Your task to perform on an android device: What is the news today? Image 0: 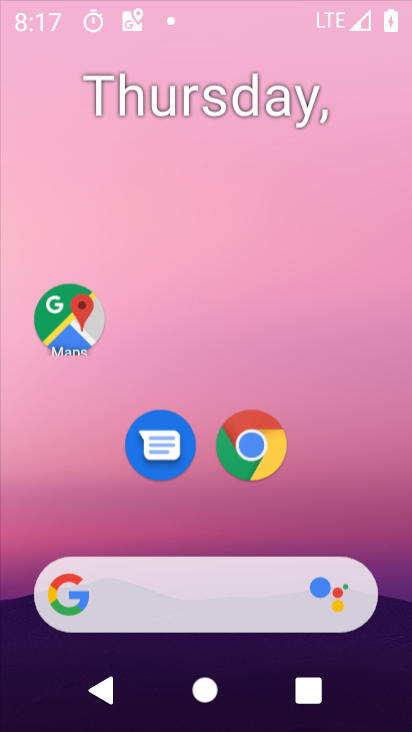
Step 0: drag from (239, 566) to (341, 161)
Your task to perform on an android device: What is the news today? Image 1: 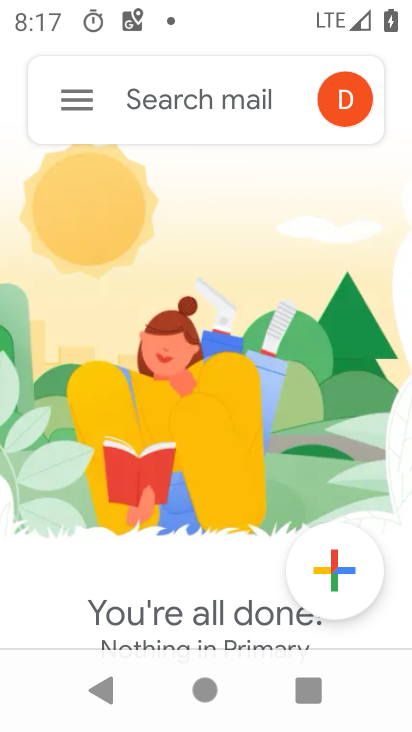
Step 1: drag from (215, 599) to (277, 178)
Your task to perform on an android device: What is the news today? Image 2: 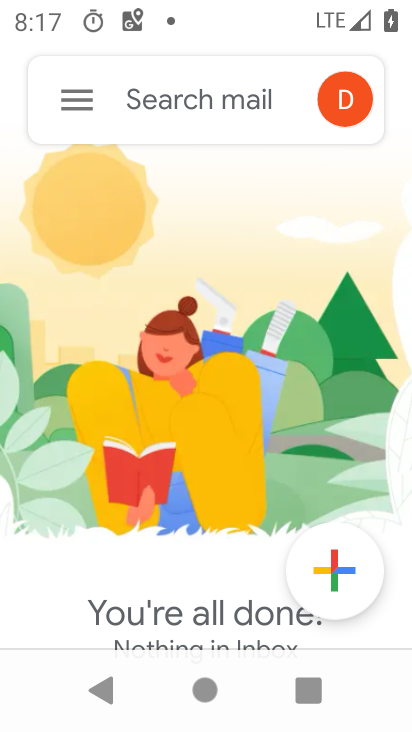
Step 2: drag from (200, 606) to (175, 301)
Your task to perform on an android device: What is the news today? Image 3: 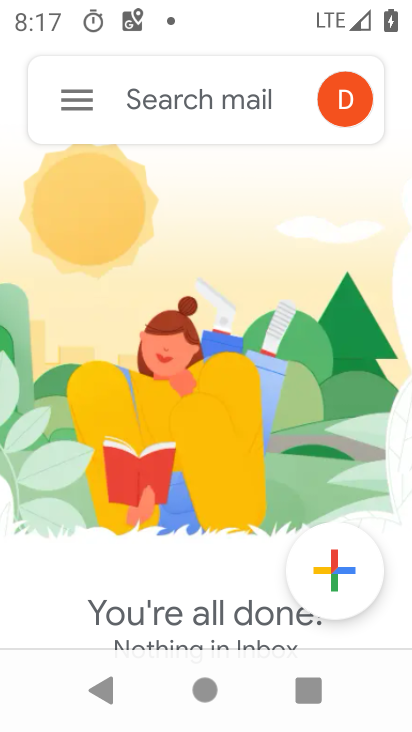
Step 3: drag from (186, 602) to (225, 285)
Your task to perform on an android device: What is the news today? Image 4: 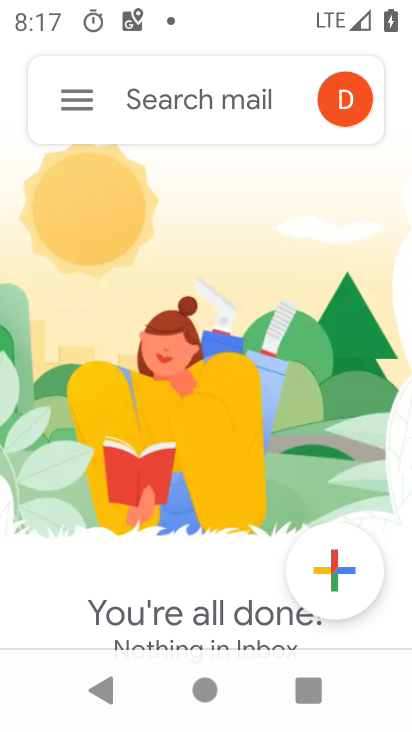
Step 4: click (90, 83)
Your task to perform on an android device: What is the news today? Image 5: 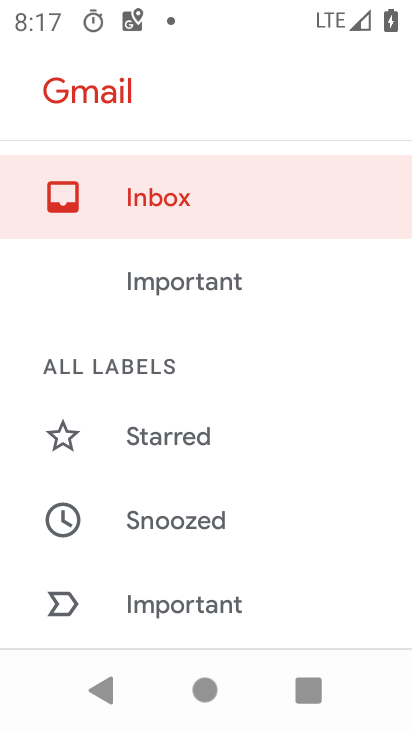
Step 5: drag from (176, 537) to (179, 123)
Your task to perform on an android device: What is the news today? Image 6: 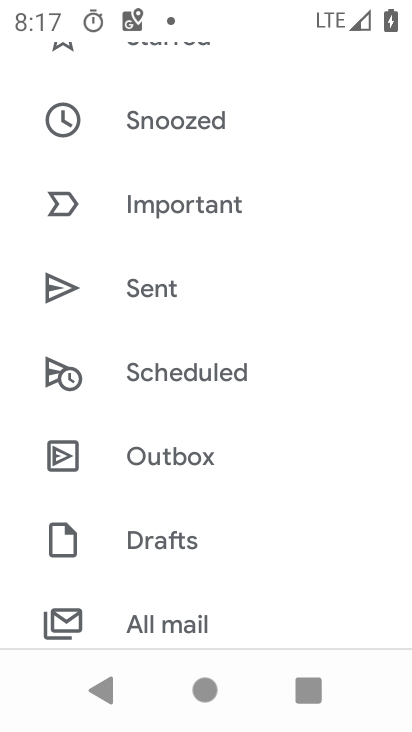
Step 6: drag from (221, 514) to (262, 210)
Your task to perform on an android device: What is the news today? Image 7: 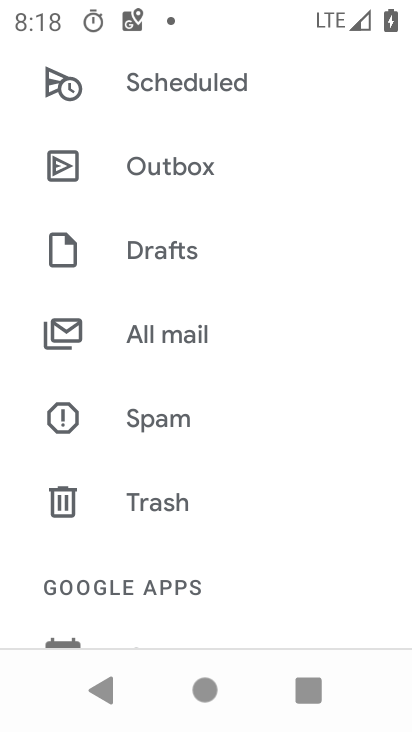
Step 7: drag from (204, 535) to (232, 170)
Your task to perform on an android device: What is the news today? Image 8: 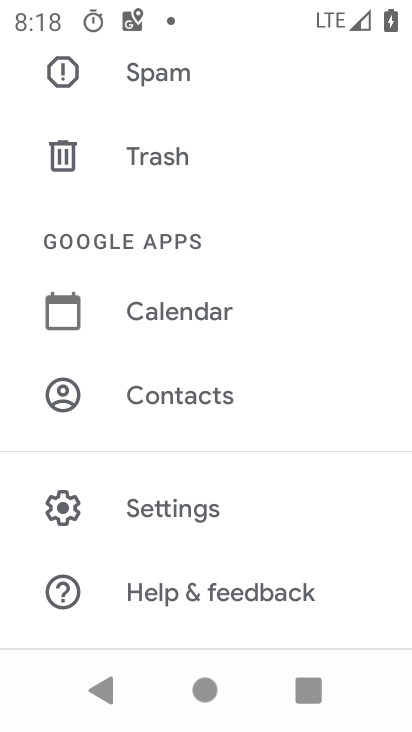
Step 8: press home button
Your task to perform on an android device: What is the news today? Image 9: 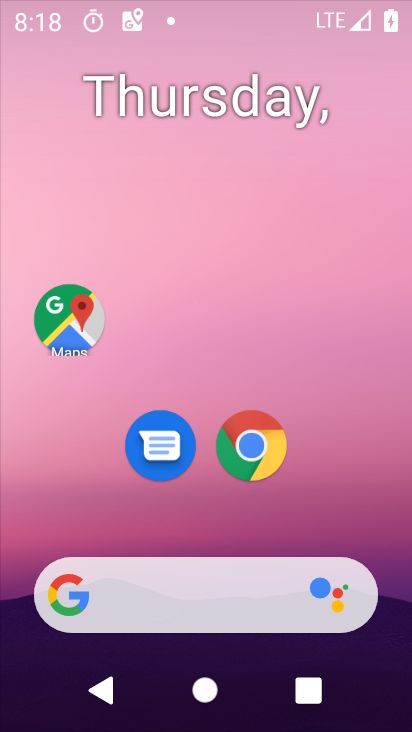
Step 9: drag from (207, 552) to (259, 163)
Your task to perform on an android device: What is the news today? Image 10: 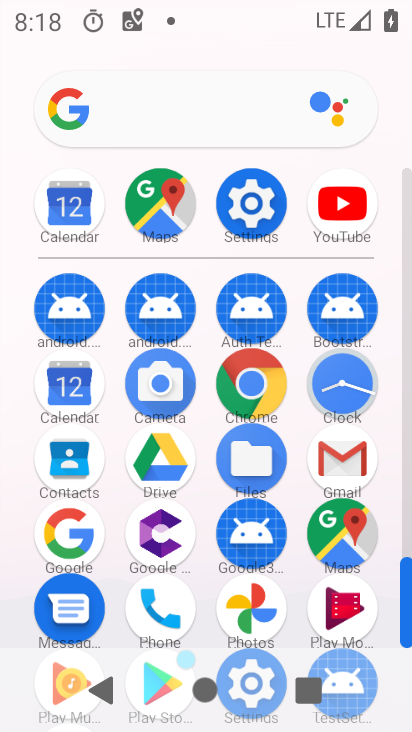
Step 10: click (80, 398)
Your task to perform on an android device: What is the news today? Image 11: 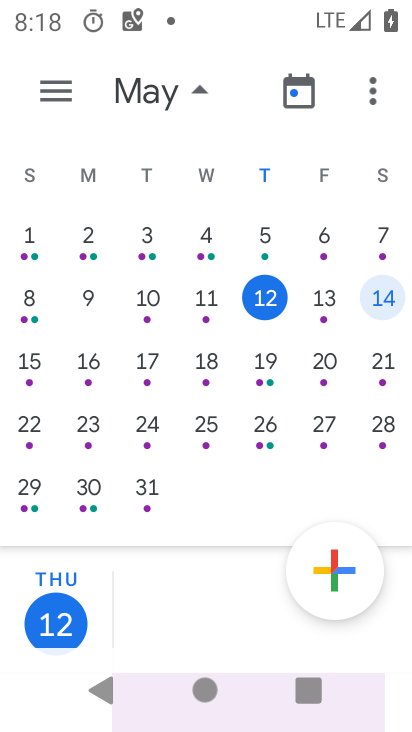
Step 11: click (259, 307)
Your task to perform on an android device: What is the news today? Image 12: 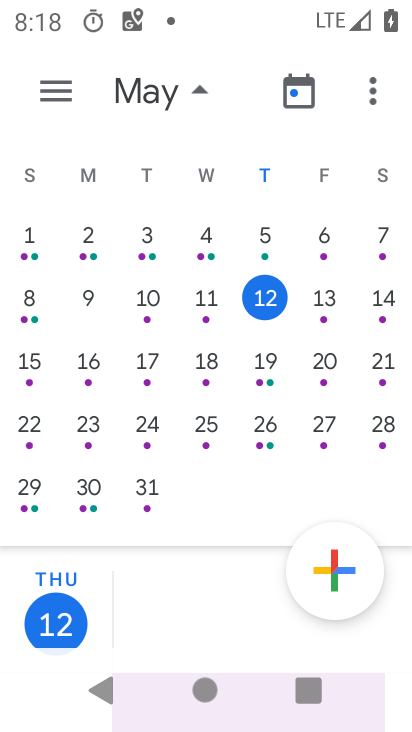
Step 12: task complete